Your task to perform on an android device: open a new tab in the chrome app Image 0: 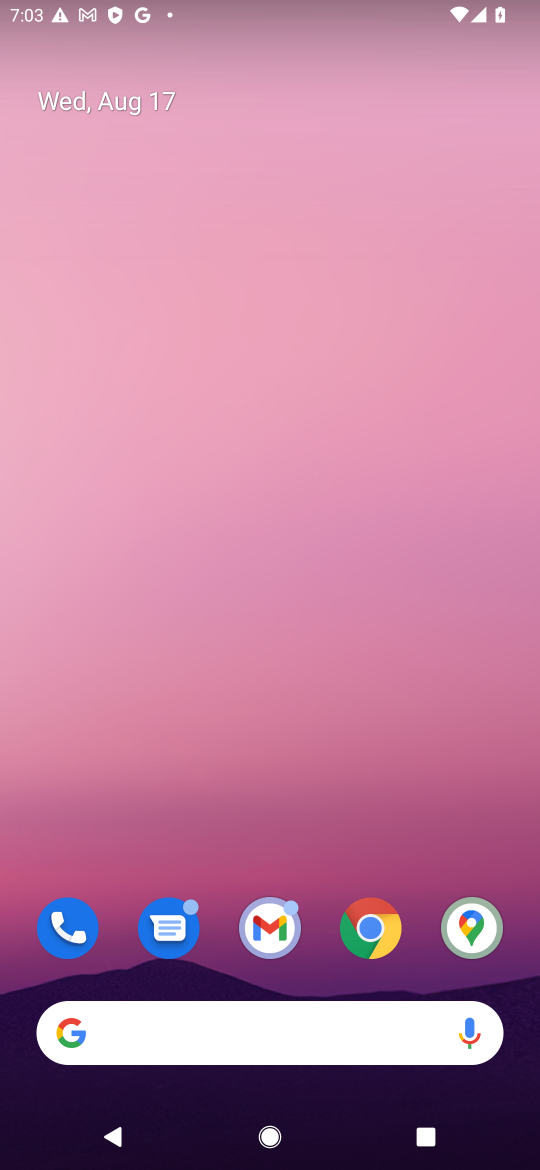
Step 0: click (357, 910)
Your task to perform on an android device: open a new tab in the chrome app Image 1: 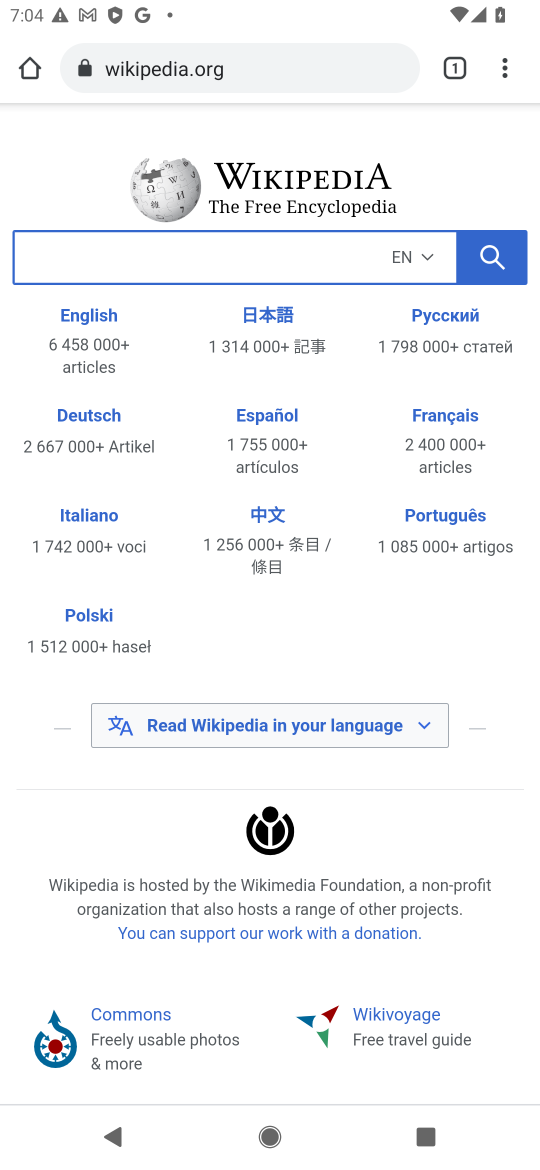
Step 1: click (476, 78)
Your task to perform on an android device: open a new tab in the chrome app Image 2: 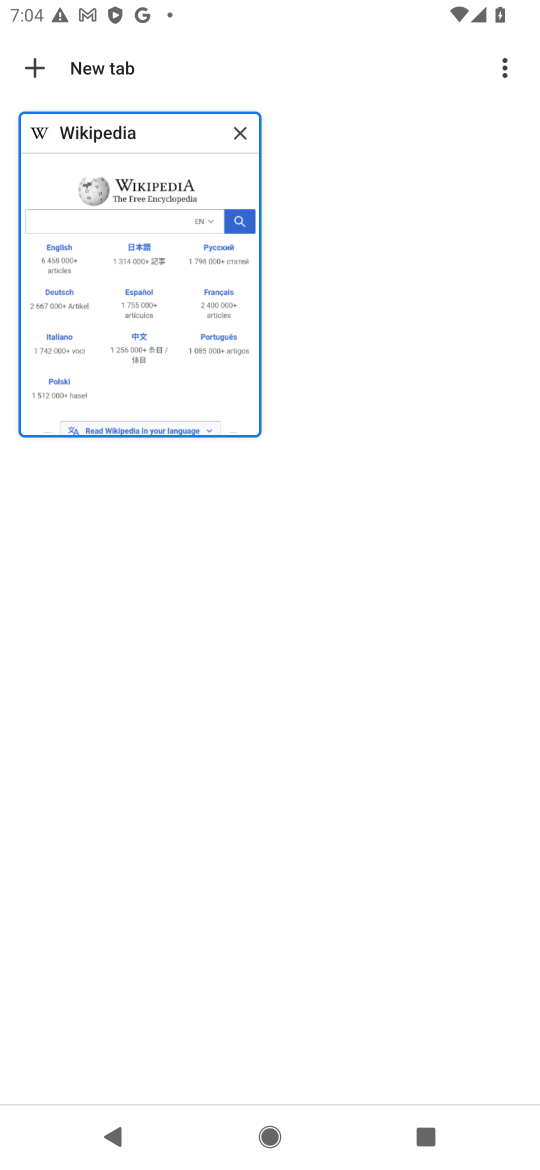
Step 2: click (40, 65)
Your task to perform on an android device: open a new tab in the chrome app Image 3: 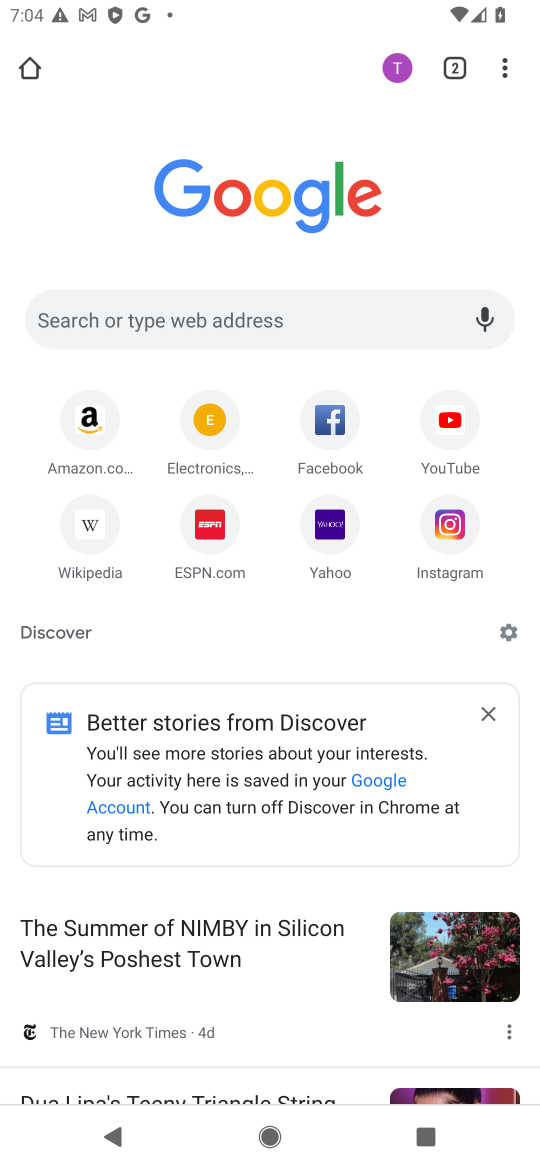
Step 3: task complete